Your task to perform on an android device: Open Chrome and go to settings Image 0: 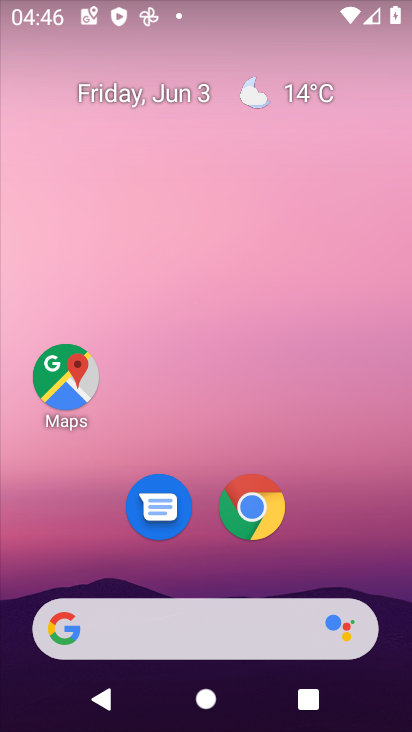
Step 0: click (250, 503)
Your task to perform on an android device: Open Chrome and go to settings Image 1: 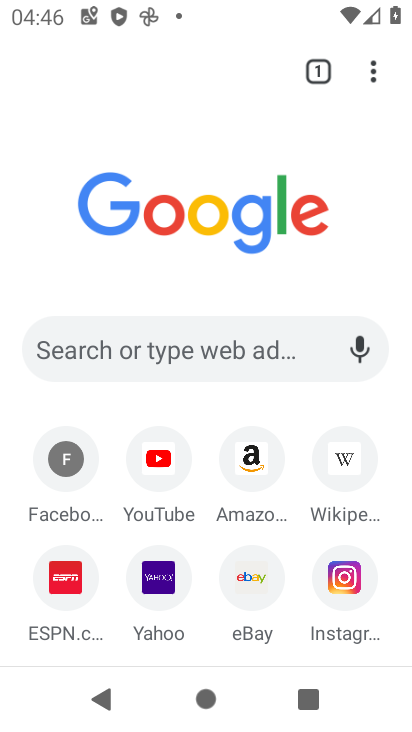
Step 1: click (371, 82)
Your task to perform on an android device: Open Chrome and go to settings Image 2: 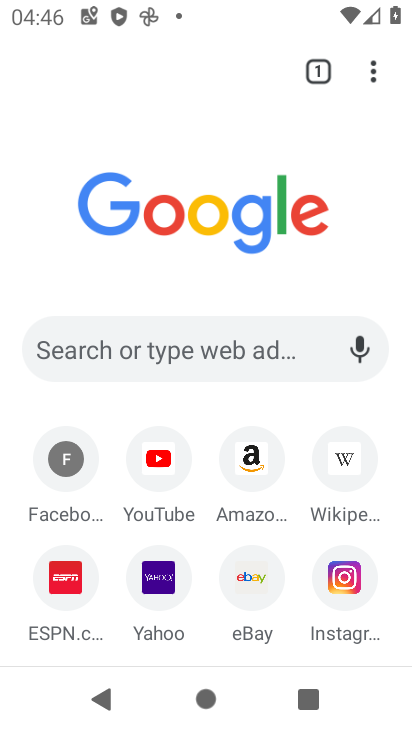
Step 2: task complete